Your task to perform on an android device: empty trash in google photos Image 0: 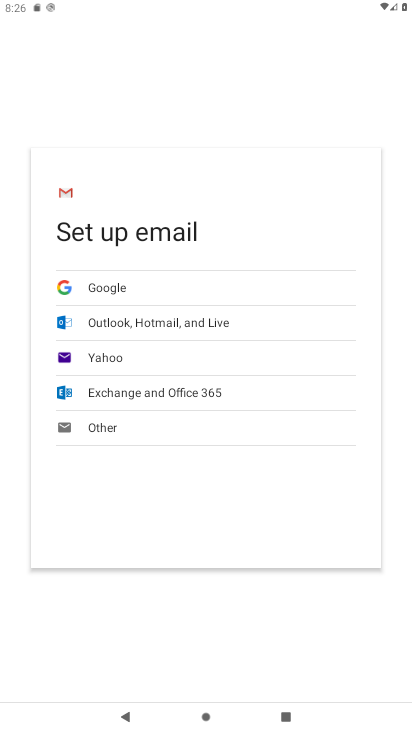
Step 0: press home button
Your task to perform on an android device: empty trash in google photos Image 1: 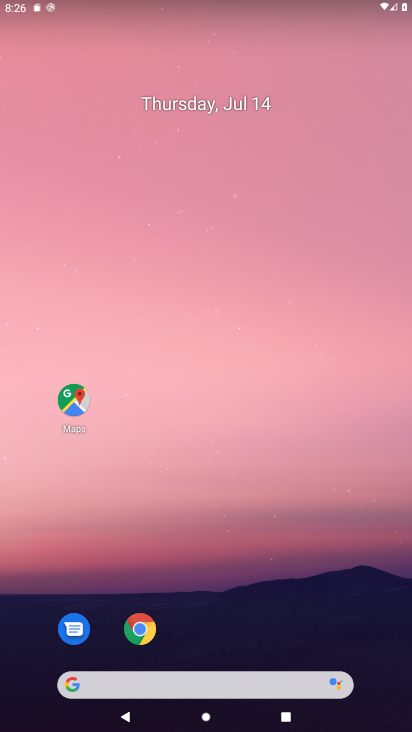
Step 1: drag from (228, 635) to (232, 11)
Your task to perform on an android device: empty trash in google photos Image 2: 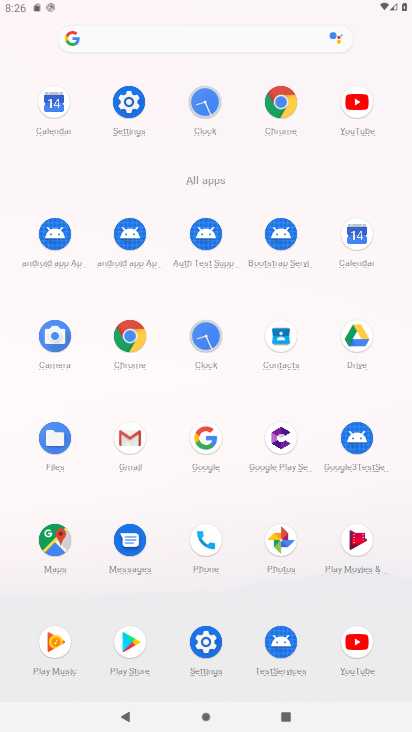
Step 2: click (282, 551)
Your task to perform on an android device: empty trash in google photos Image 3: 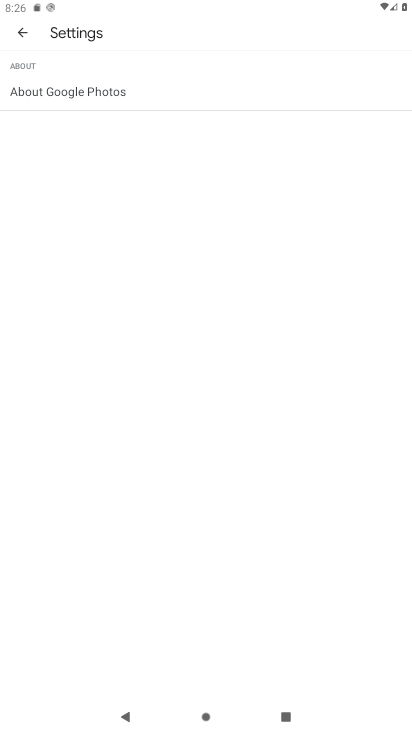
Step 3: click (21, 27)
Your task to perform on an android device: empty trash in google photos Image 4: 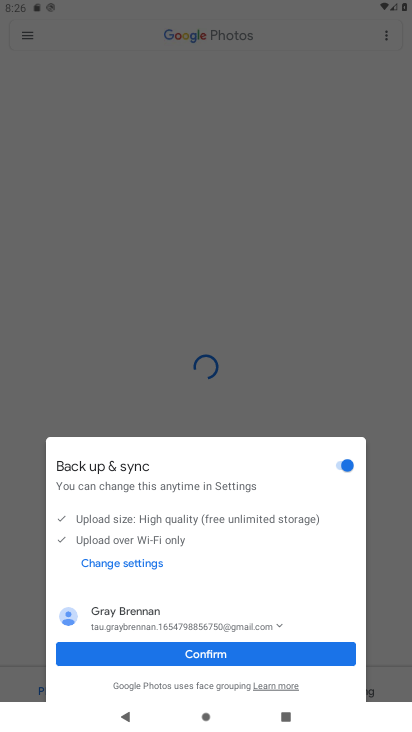
Step 4: click (214, 654)
Your task to perform on an android device: empty trash in google photos Image 5: 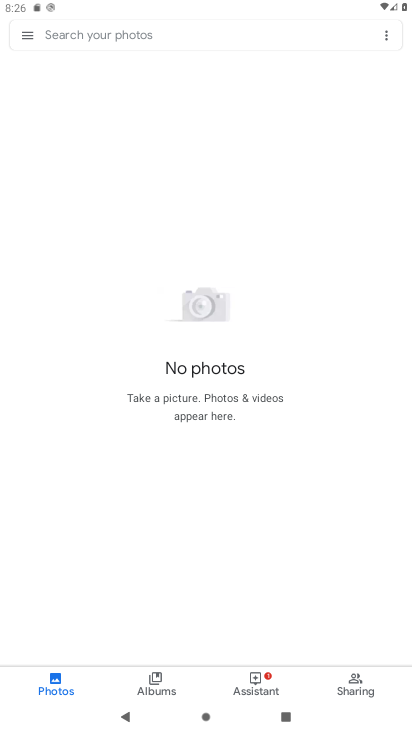
Step 5: click (33, 31)
Your task to perform on an android device: empty trash in google photos Image 6: 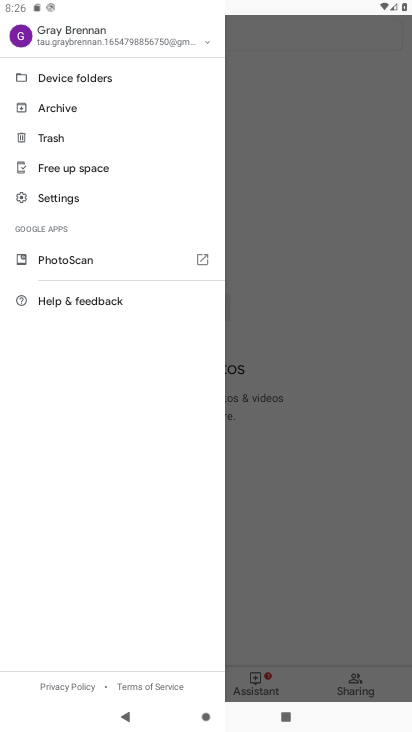
Step 6: click (59, 136)
Your task to perform on an android device: empty trash in google photos Image 7: 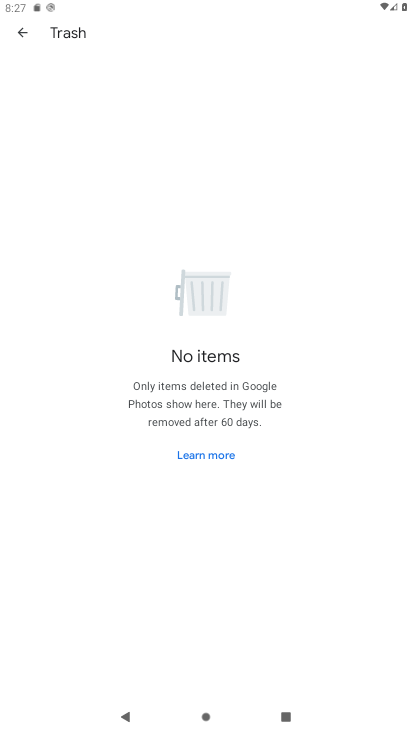
Step 7: task complete